Your task to perform on an android device: install app "Contacts" Image 0: 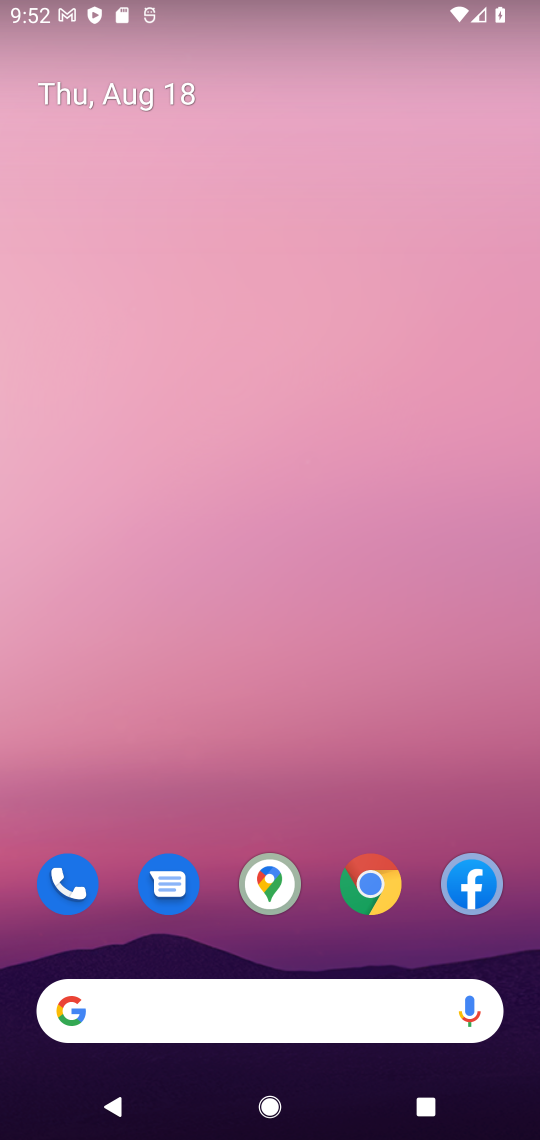
Step 0: drag from (368, 963) to (306, 242)
Your task to perform on an android device: install app "Contacts" Image 1: 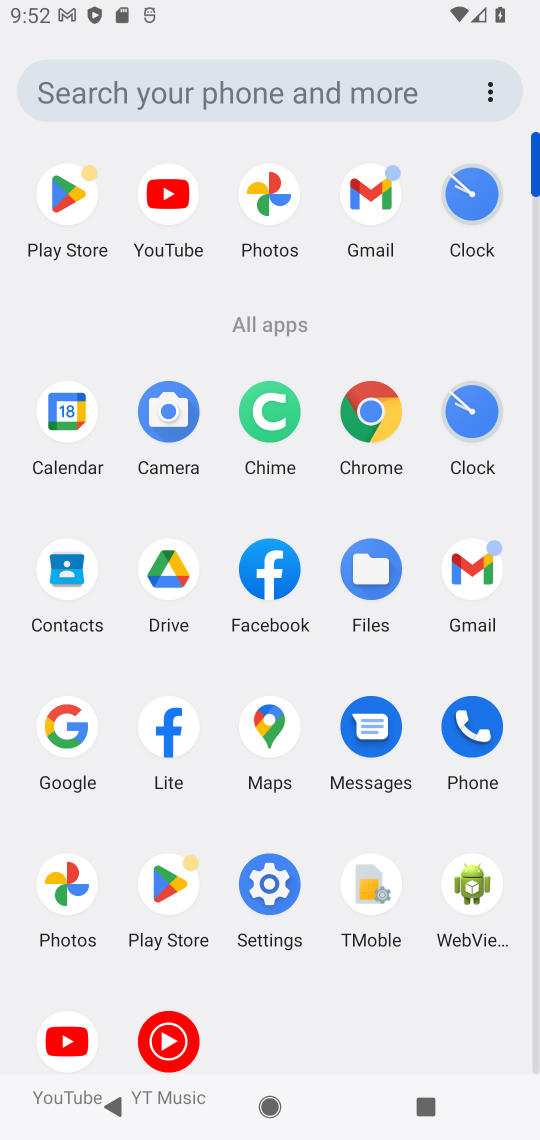
Step 1: click (54, 577)
Your task to perform on an android device: install app "Contacts" Image 2: 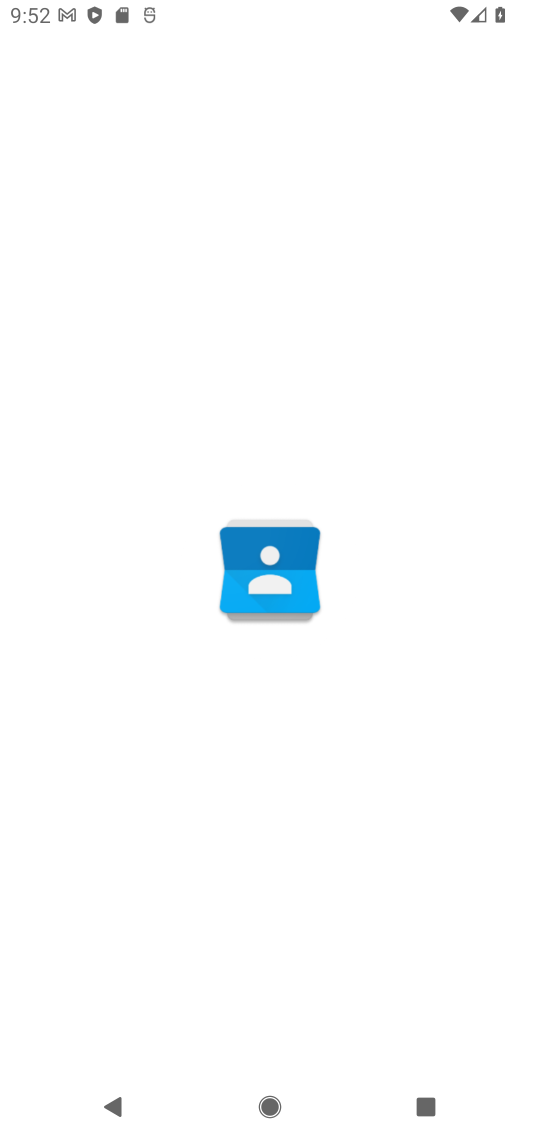
Step 2: task complete